Your task to perform on an android device: Open the web browser Image 0: 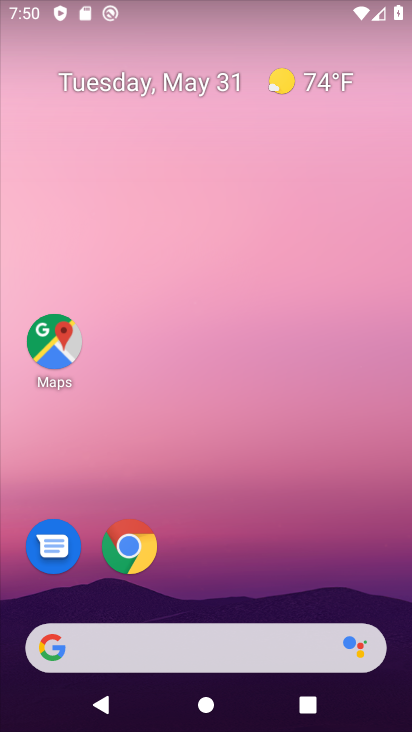
Step 0: drag from (249, 533) to (331, 80)
Your task to perform on an android device: Open the web browser Image 1: 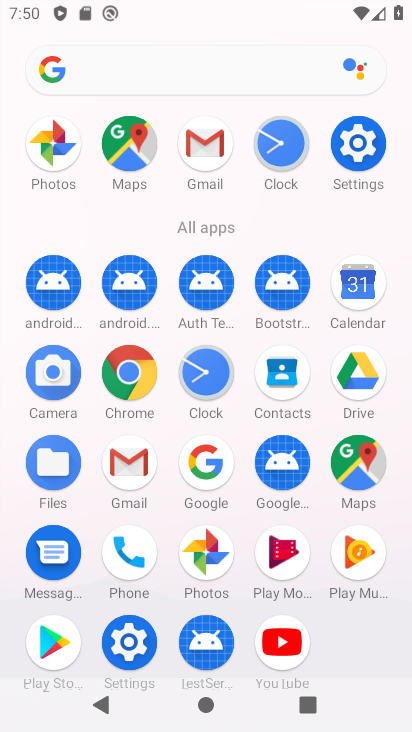
Step 1: click (200, 464)
Your task to perform on an android device: Open the web browser Image 2: 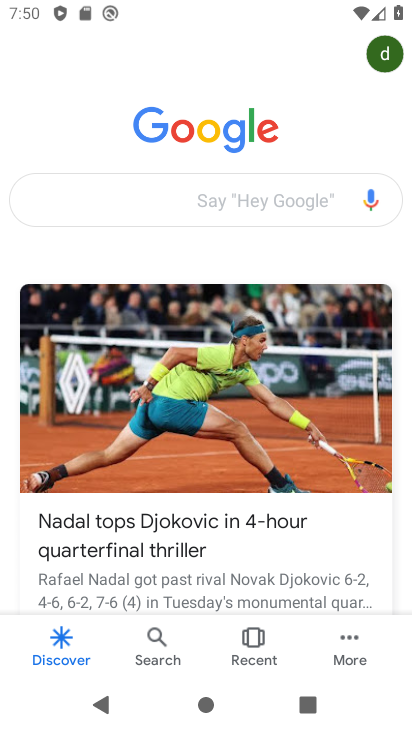
Step 2: task complete